Your task to perform on an android device: Search for sushi restaurants on Maps Image 0: 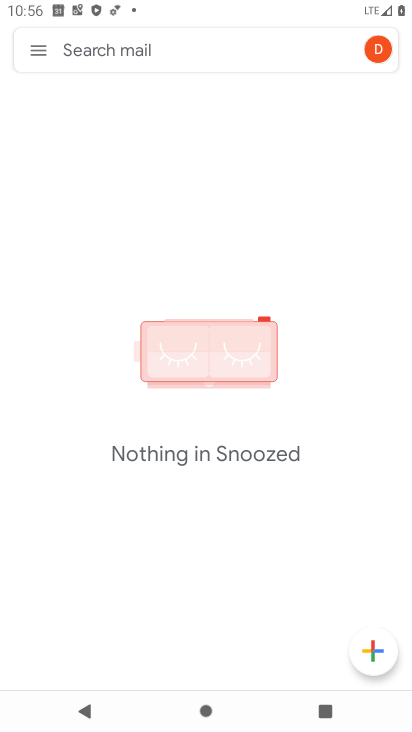
Step 0: press home button
Your task to perform on an android device: Search for sushi restaurants on Maps Image 1: 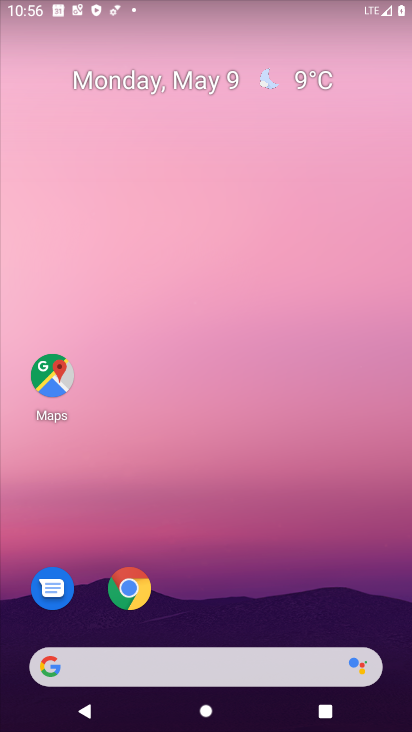
Step 1: drag from (179, 668) to (284, 179)
Your task to perform on an android device: Search for sushi restaurants on Maps Image 2: 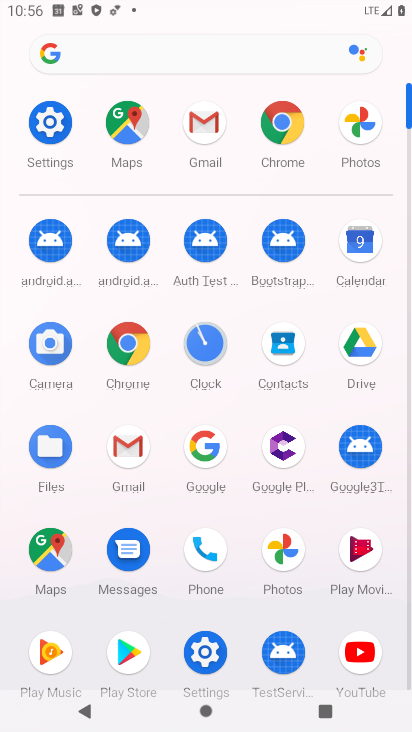
Step 2: click (128, 127)
Your task to perform on an android device: Search for sushi restaurants on Maps Image 3: 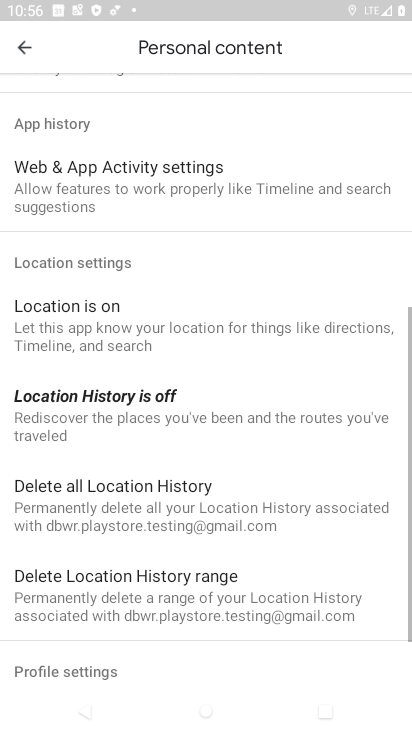
Step 3: click (20, 49)
Your task to perform on an android device: Search for sushi restaurants on Maps Image 4: 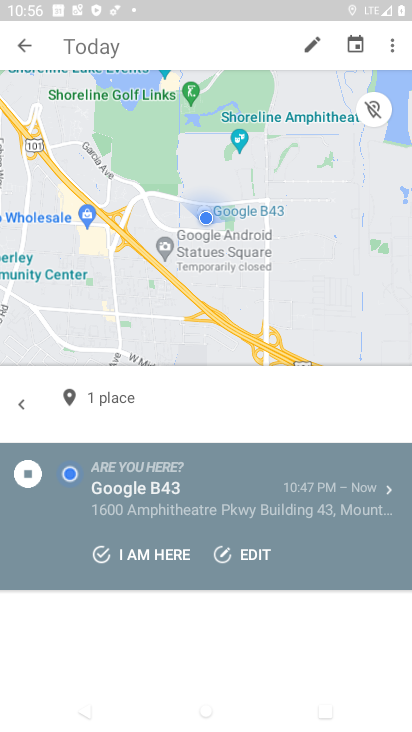
Step 4: click (21, 47)
Your task to perform on an android device: Search for sushi restaurants on Maps Image 5: 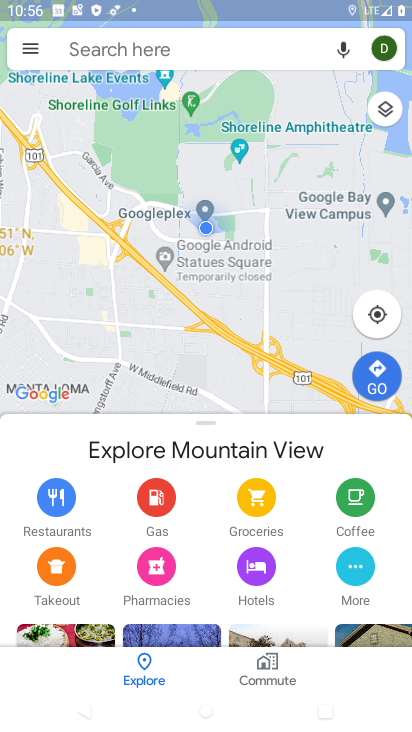
Step 5: click (151, 49)
Your task to perform on an android device: Search for sushi restaurants on Maps Image 6: 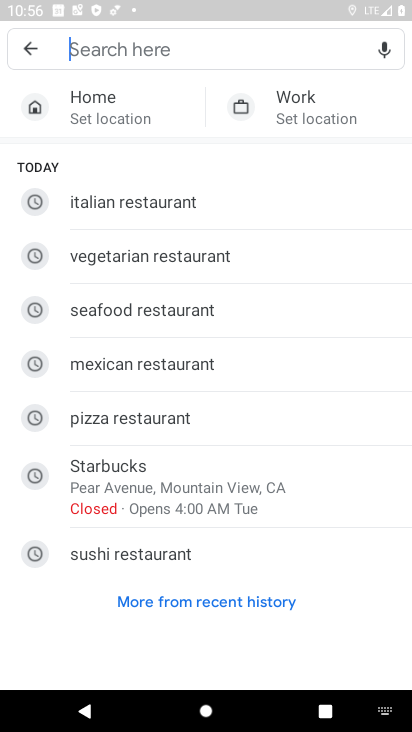
Step 6: click (162, 556)
Your task to perform on an android device: Search for sushi restaurants on Maps Image 7: 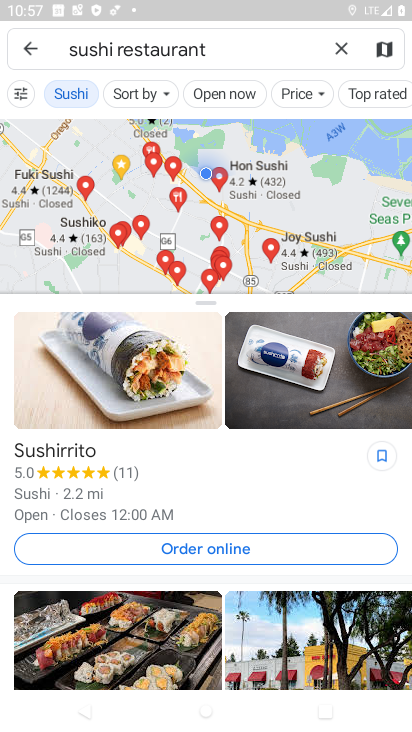
Step 7: task complete